Your task to perform on an android device: turn off smart reply in the gmail app Image 0: 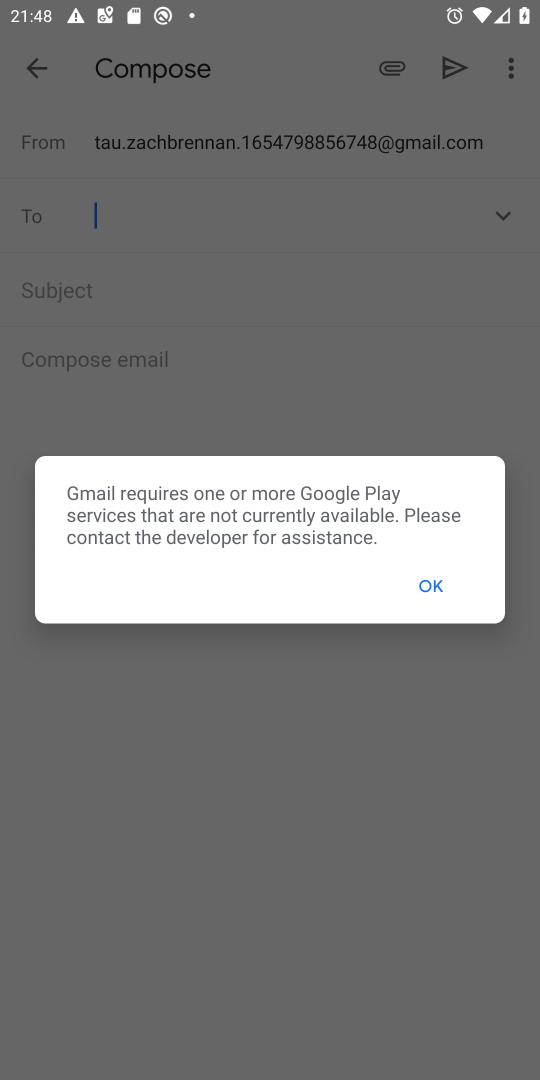
Step 0: press home button
Your task to perform on an android device: turn off smart reply in the gmail app Image 1: 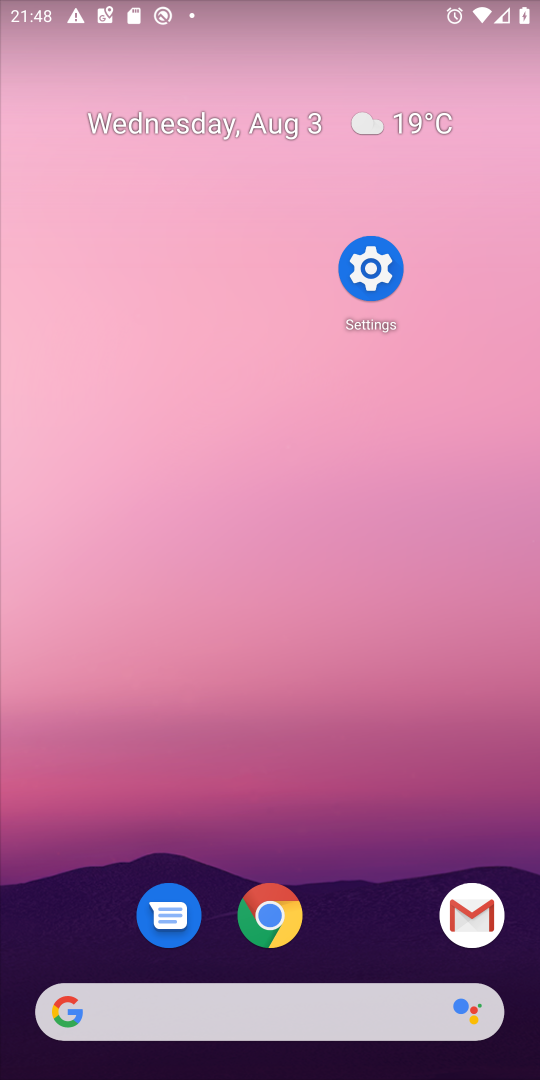
Step 1: drag from (371, 1025) to (386, 258)
Your task to perform on an android device: turn off smart reply in the gmail app Image 2: 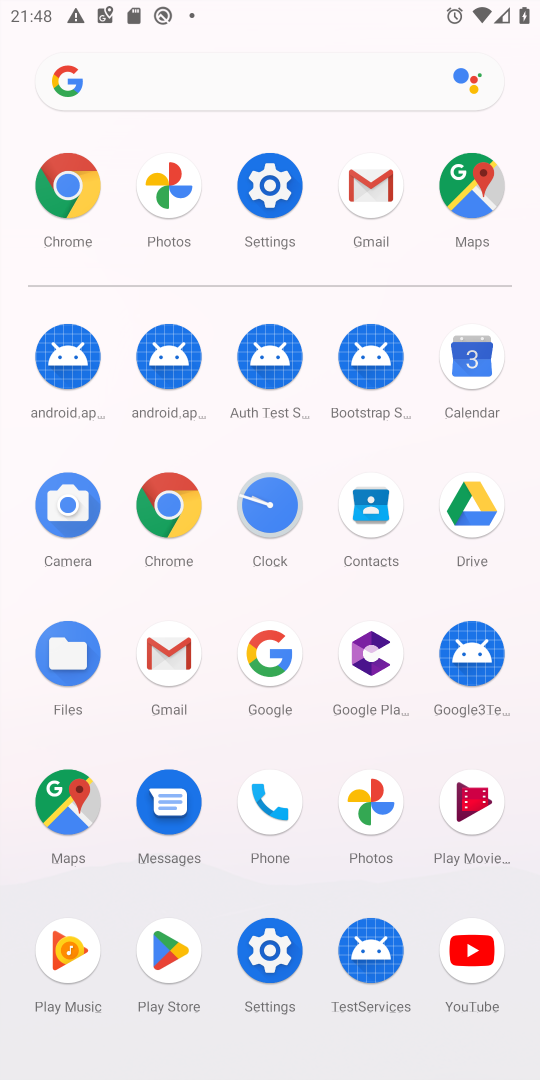
Step 2: click (150, 673)
Your task to perform on an android device: turn off smart reply in the gmail app Image 3: 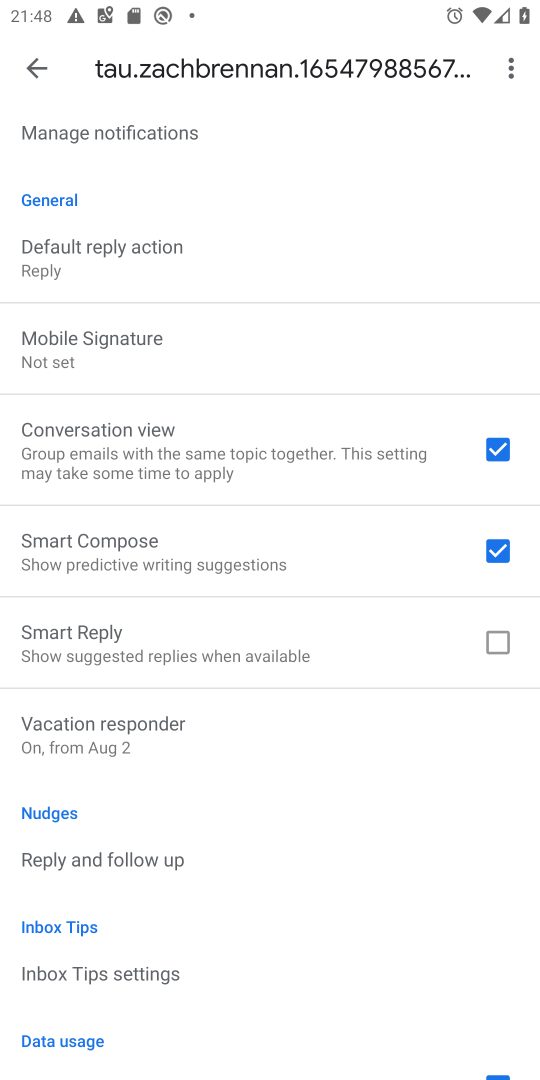
Step 3: click (342, 677)
Your task to perform on an android device: turn off smart reply in the gmail app Image 4: 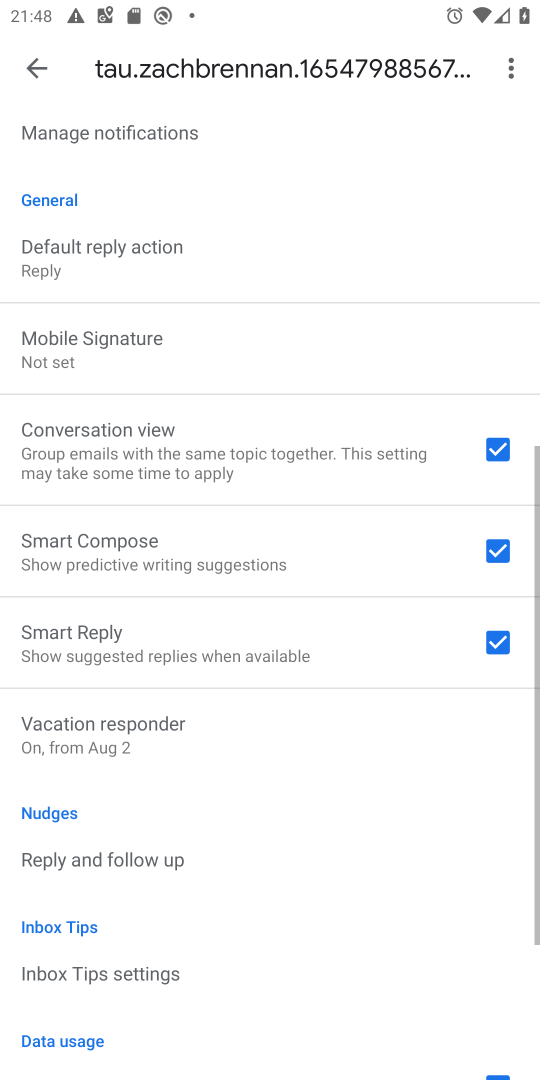
Step 4: click (332, 662)
Your task to perform on an android device: turn off smart reply in the gmail app Image 5: 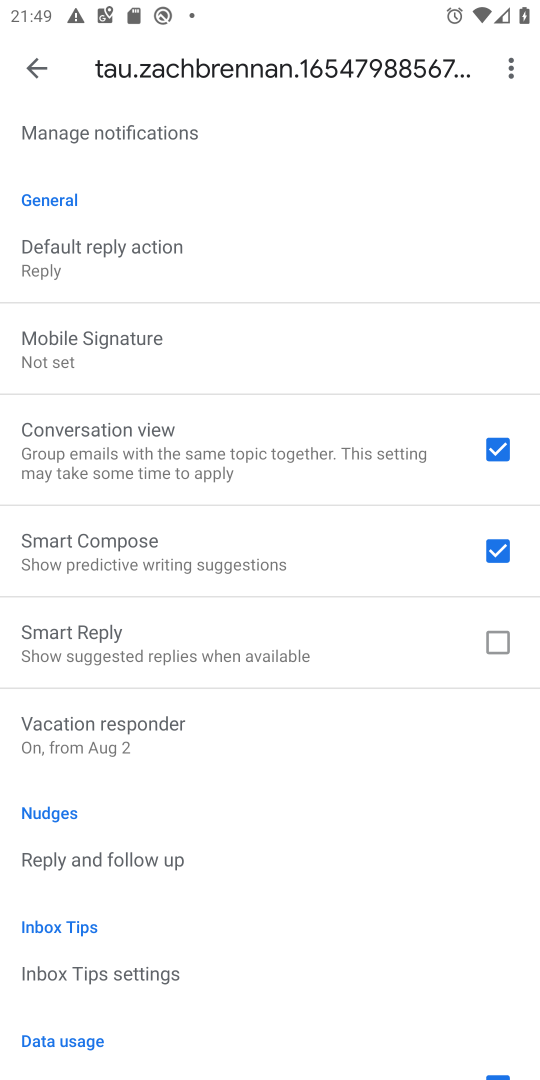
Step 5: task complete